Your task to perform on an android device: What's on my calendar tomorrow? Image 0: 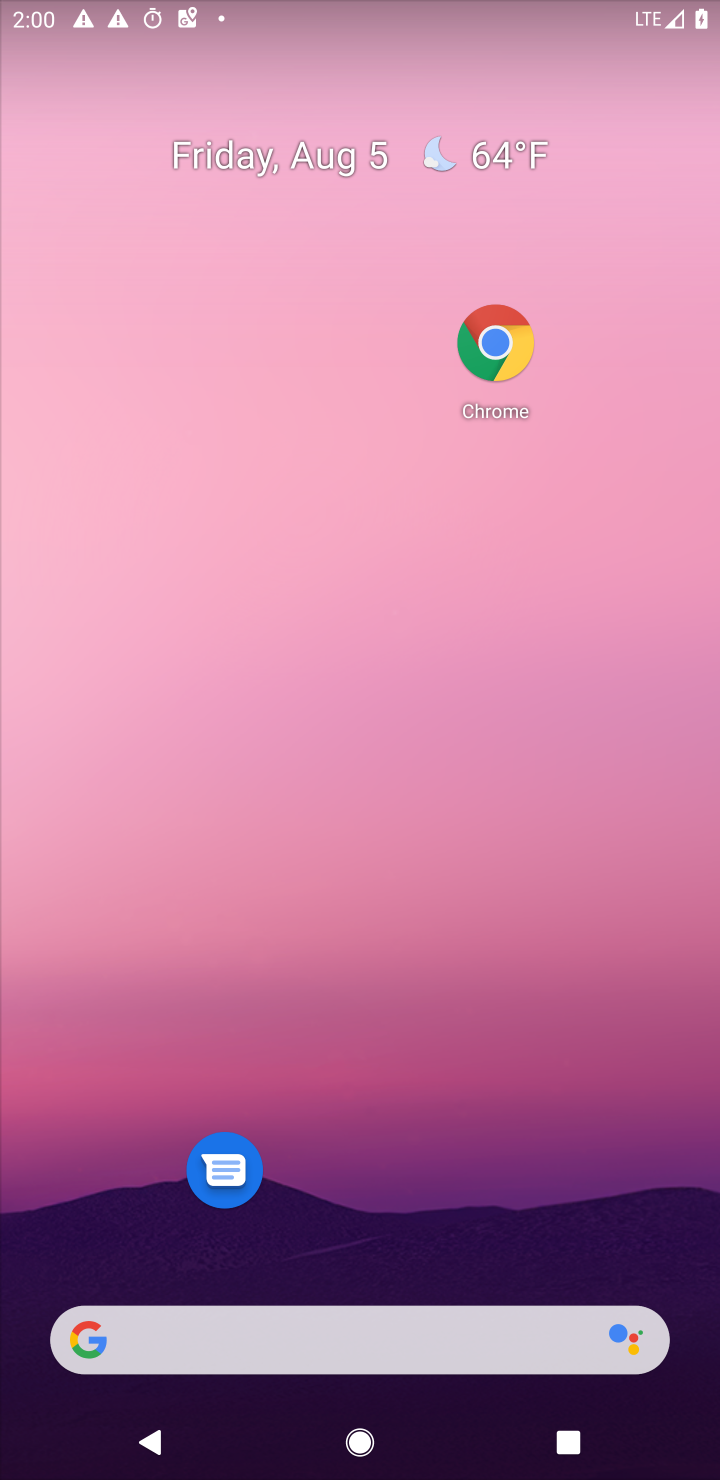
Step 0: drag from (400, 1073) to (286, 155)
Your task to perform on an android device: What's on my calendar tomorrow? Image 1: 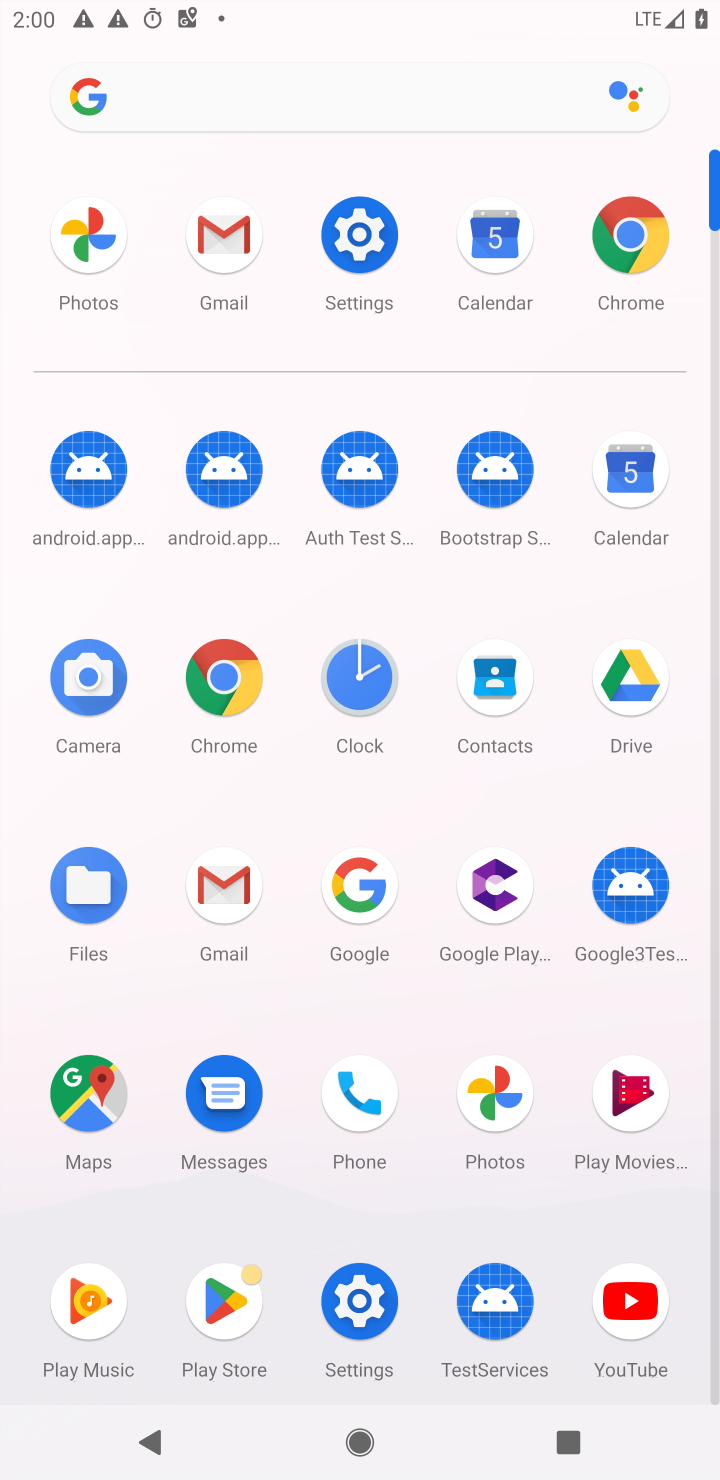
Step 1: click (652, 480)
Your task to perform on an android device: What's on my calendar tomorrow? Image 2: 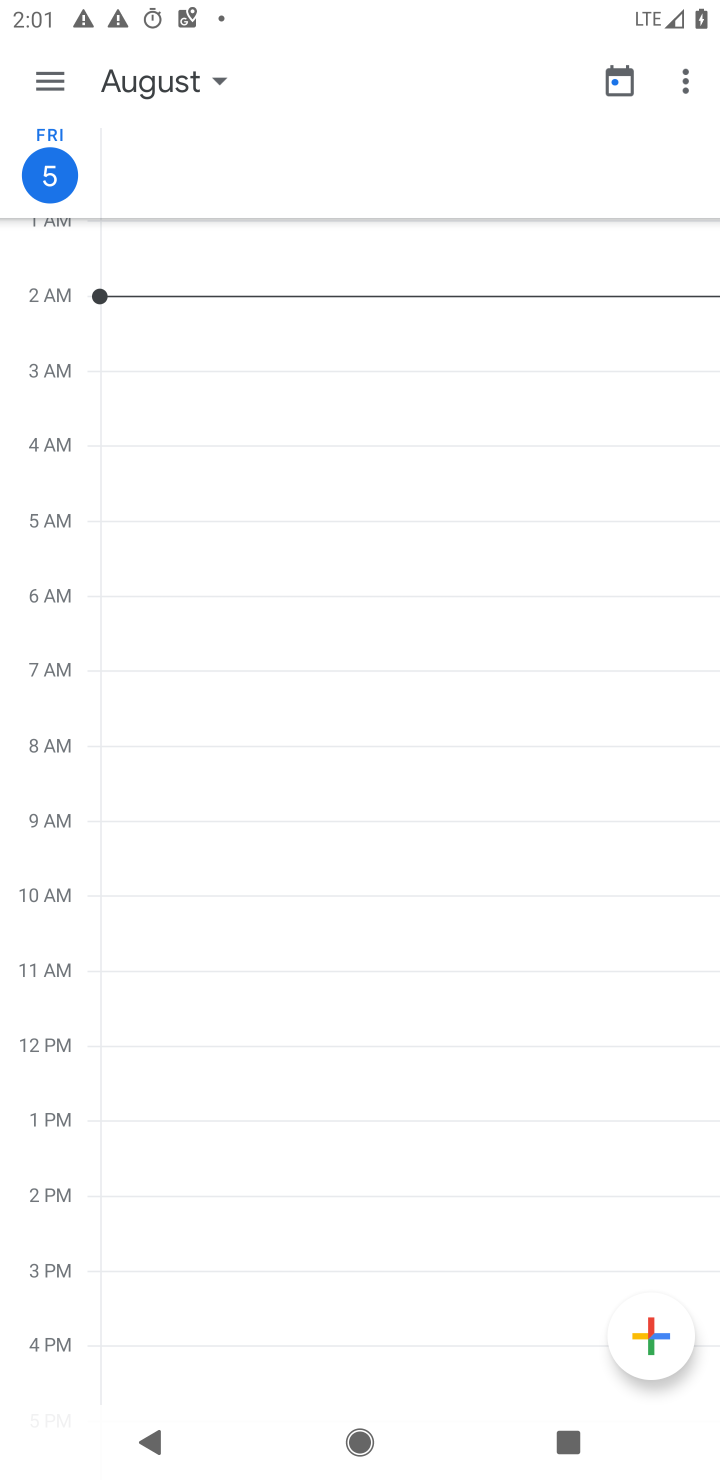
Step 2: click (50, 101)
Your task to perform on an android device: What's on my calendar tomorrow? Image 3: 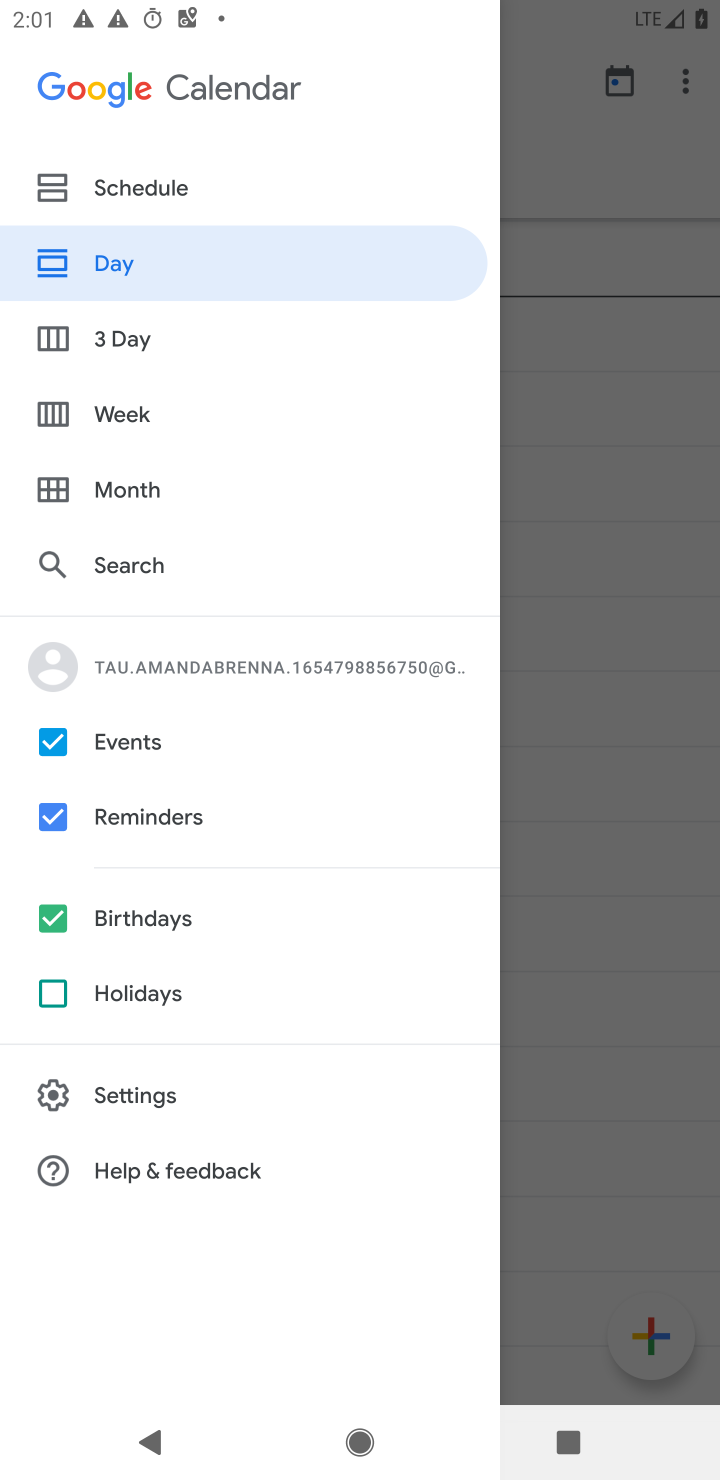
Step 3: click (567, 558)
Your task to perform on an android device: What's on my calendar tomorrow? Image 4: 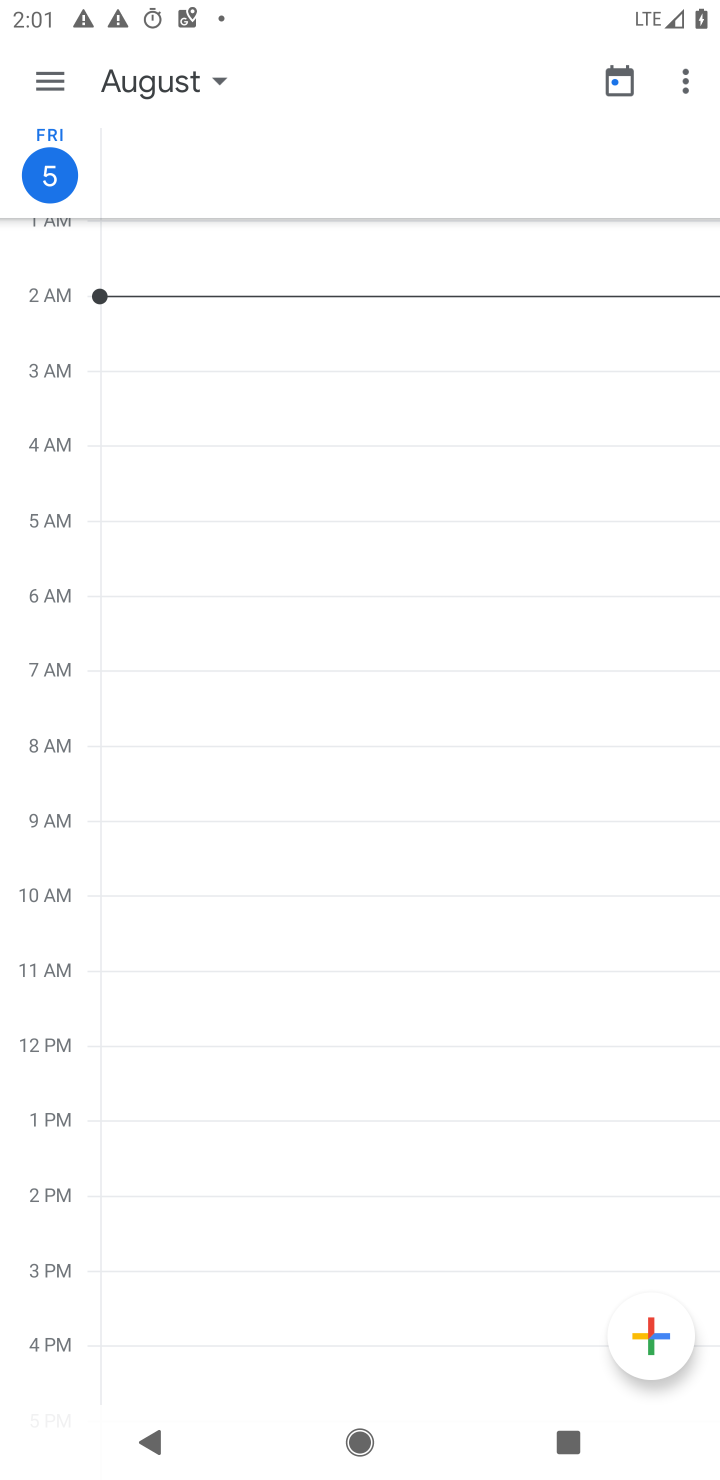
Step 4: click (180, 79)
Your task to perform on an android device: What's on my calendar tomorrow? Image 5: 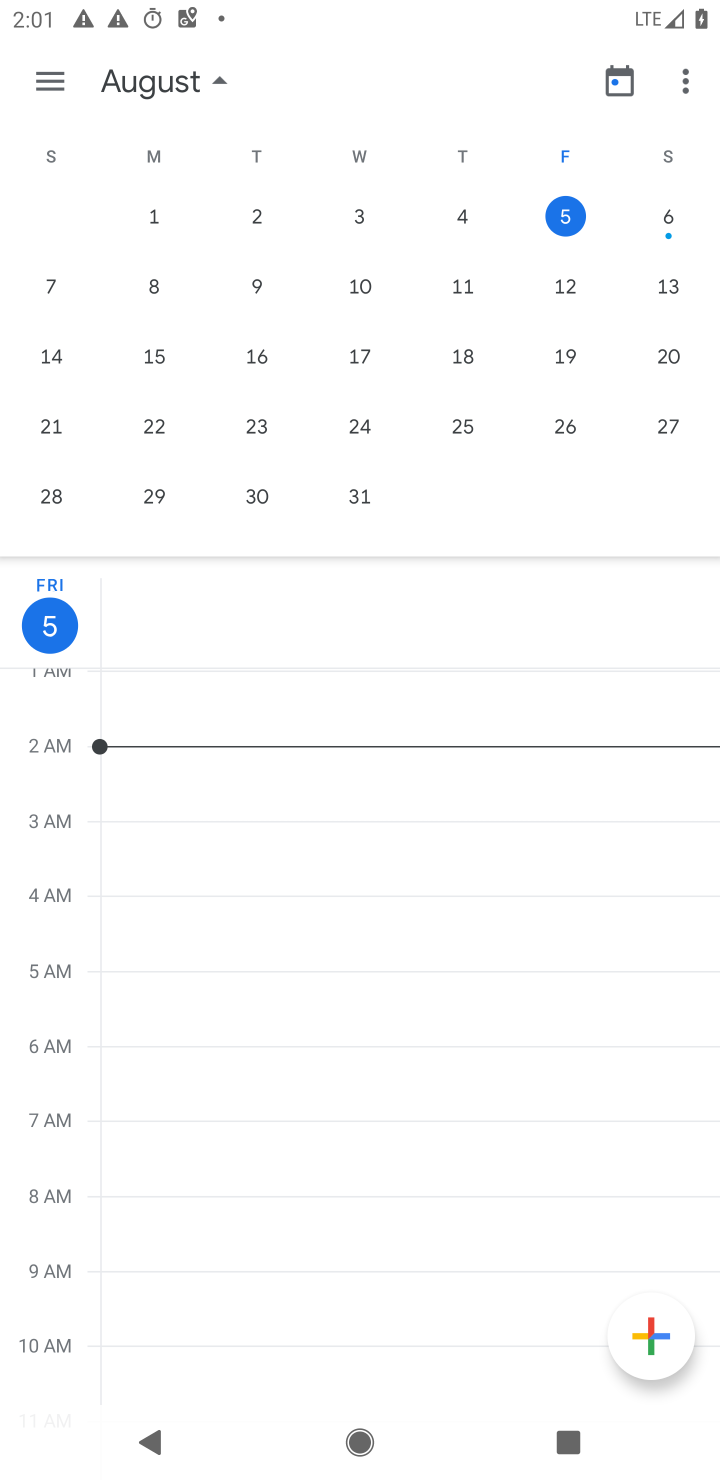
Step 5: click (658, 218)
Your task to perform on an android device: What's on my calendar tomorrow? Image 6: 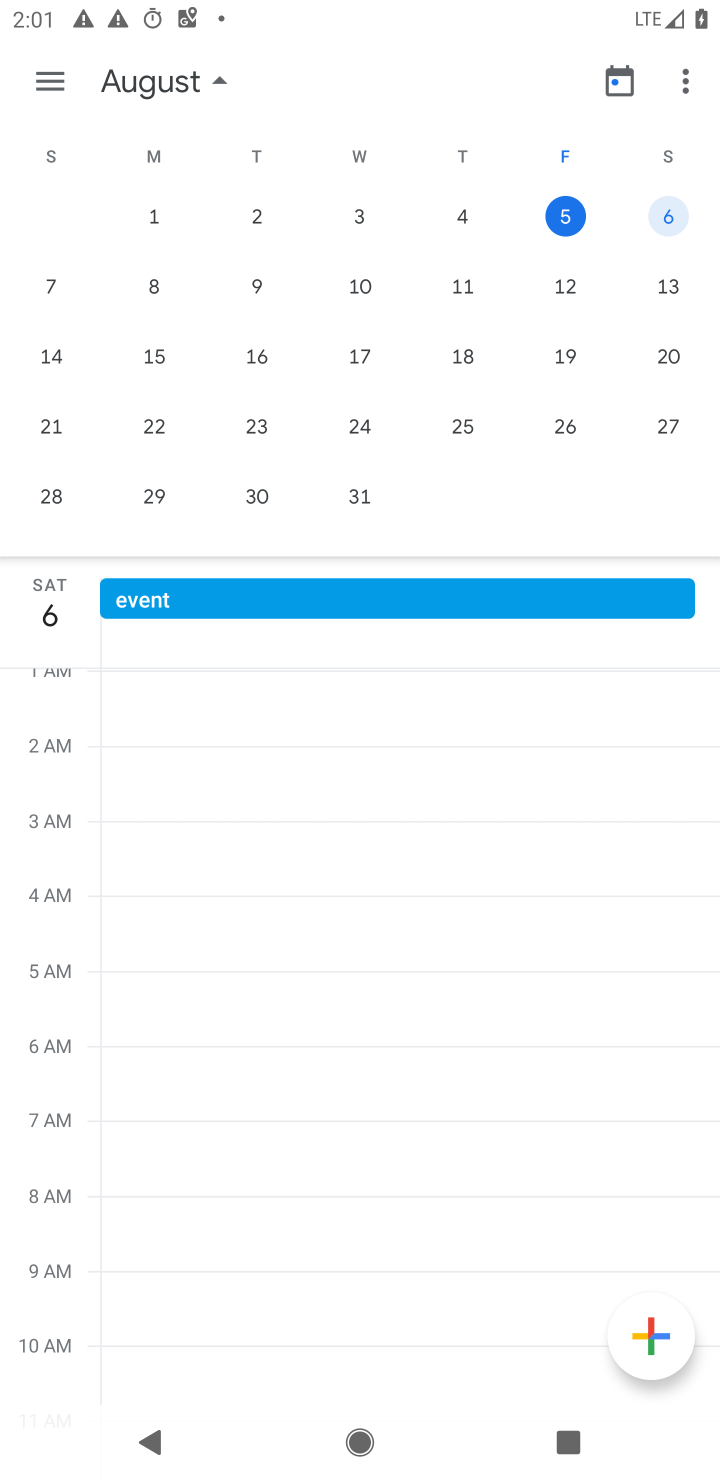
Step 6: click (187, 63)
Your task to perform on an android device: What's on my calendar tomorrow? Image 7: 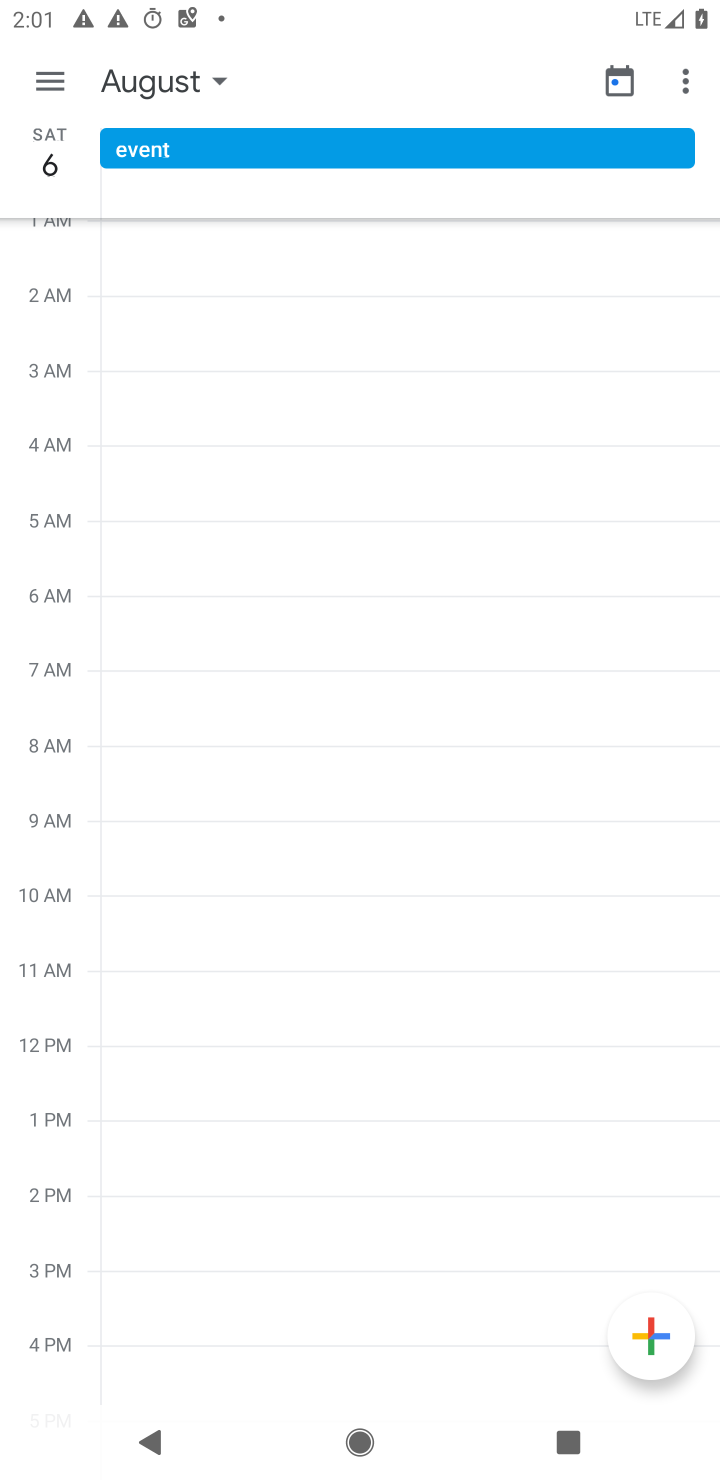
Step 7: click (177, 145)
Your task to perform on an android device: What's on my calendar tomorrow? Image 8: 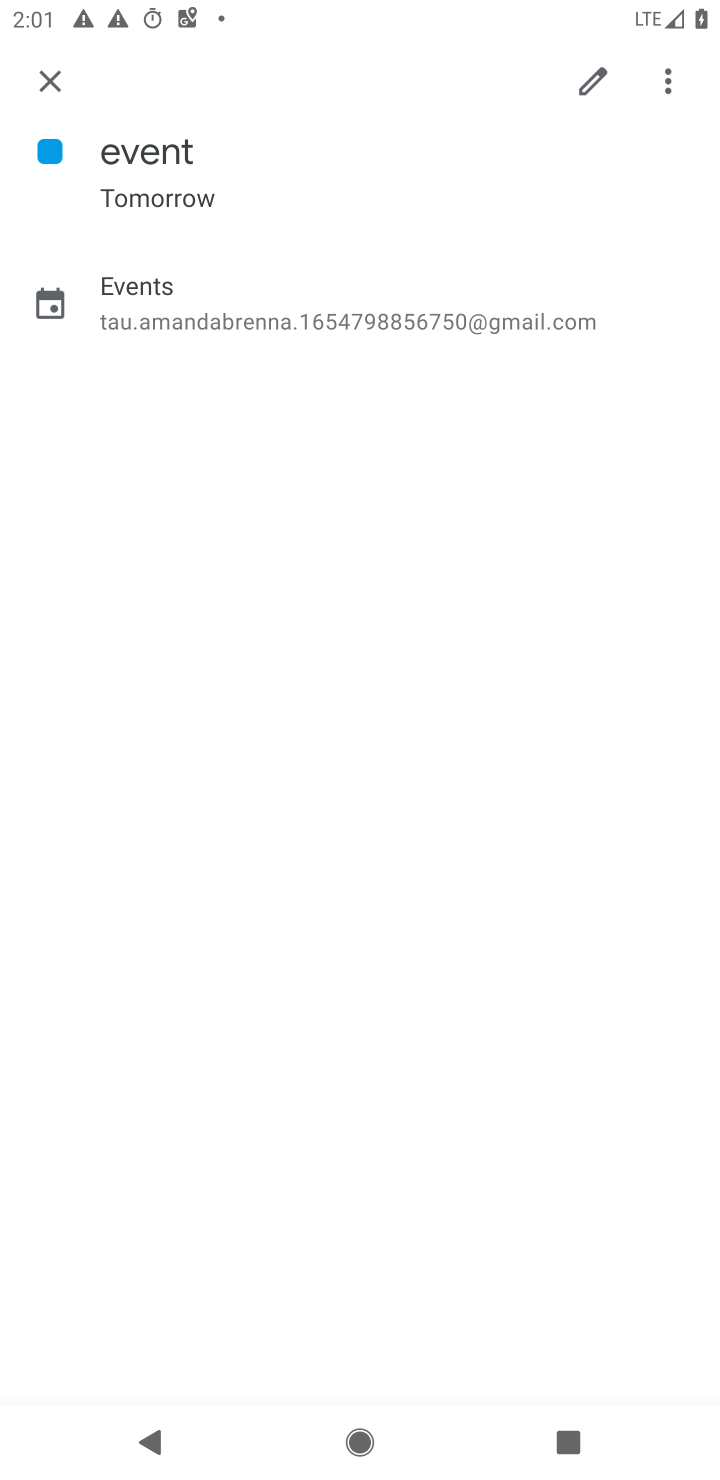
Step 8: task complete